Your task to perform on an android device: Open Maps and search for coffee Image 0: 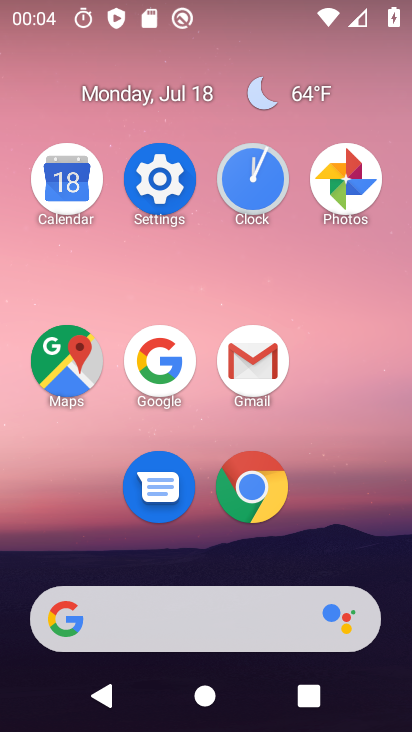
Step 0: click (262, 188)
Your task to perform on an android device: Open Maps and search for coffee Image 1: 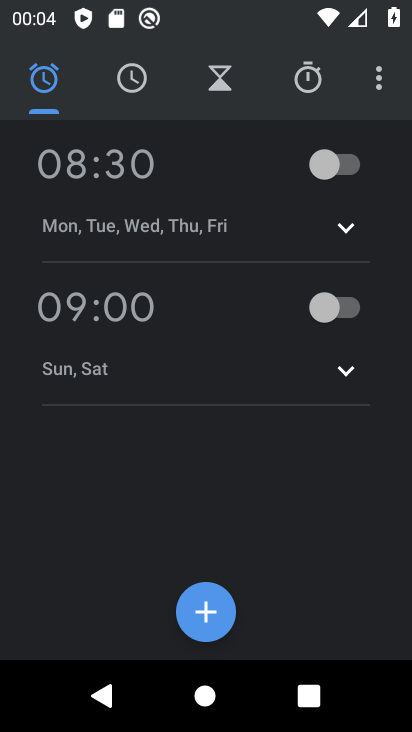
Step 1: press home button
Your task to perform on an android device: Open Maps and search for coffee Image 2: 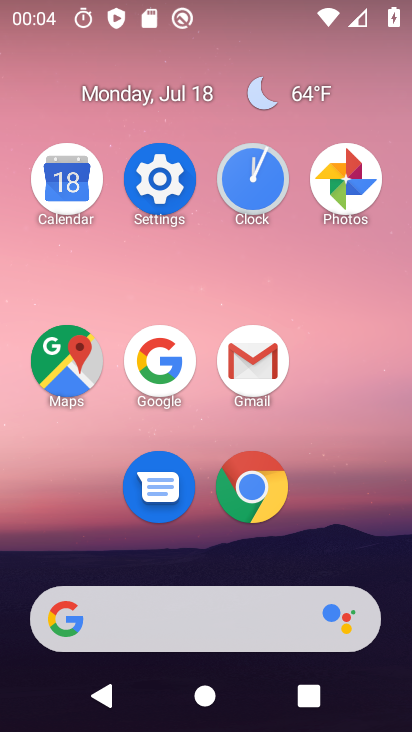
Step 2: click (78, 378)
Your task to perform on an android device: Open Maps and search for coffee Image 3: 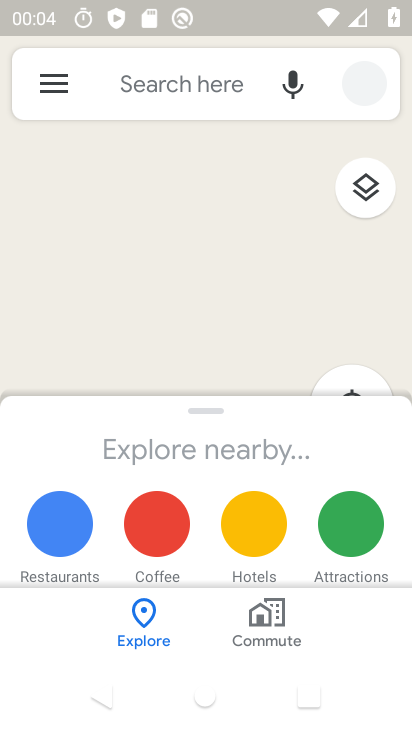
Step 3: click (177, 62)
Your task to perform on an android device: Open Maps and search for coffee Image 4: 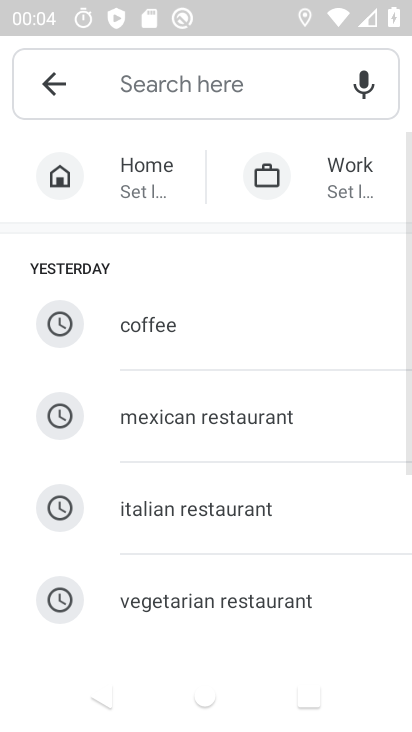
Step 4: click (212, 89)
Your task to perform on an android device: Open Maps and search for coffee Image 5: 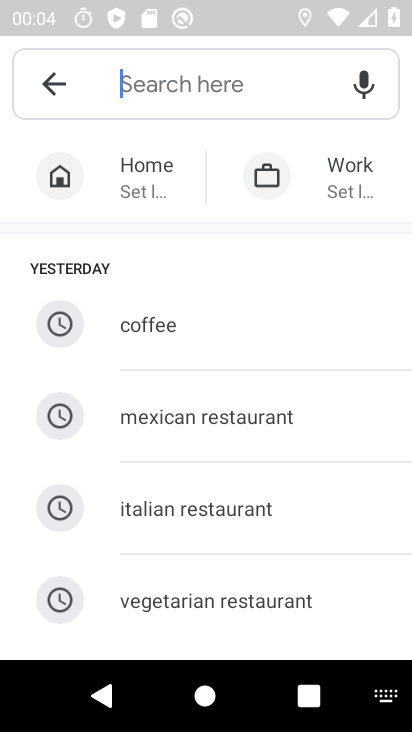
Step 5: click (168, 333)
Your task to perform on an android device: Open Maps and search for coffee Image 6: 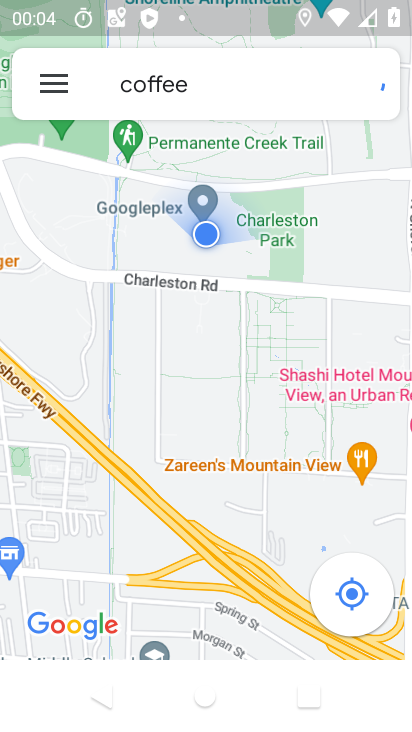
Step 6: task complete